Your task to perform on an android device: open app "Microsoft Authenticator" (install if not already installed) and enter user name: "Cornell@yahoo.com" and password: "bothersome" Image 0: 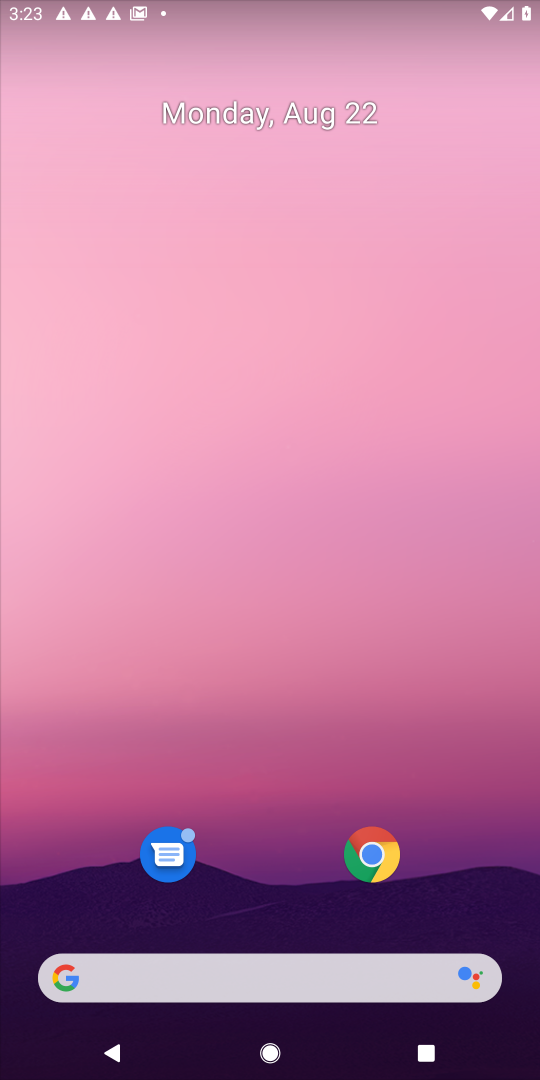
Step 0: drag from (277, 740) to (277, 165)
Your task to perform on an android device: open app "Microsoft Authenticator" (install if not already installed) and enter user name: "Cornell@yahoo.com" and password: "bothersome" Image 1: 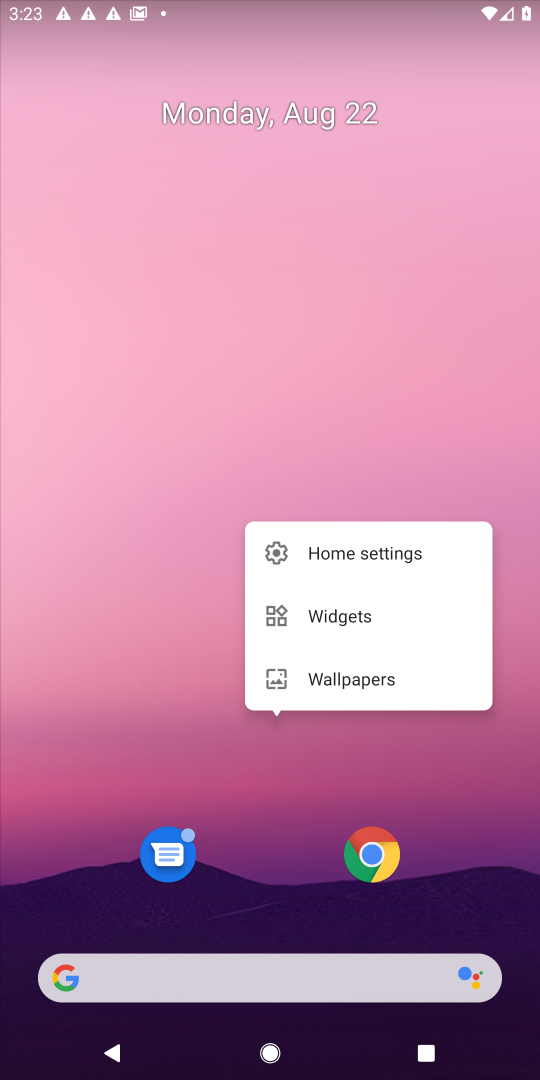
Step 1: click (332, 775)
Your task to perform on an android device: open app "Microsoft Authenticator" (install if not already installed) and enter user name: "Cornell@yahoo.com" and password: "bothersome" Image 2: 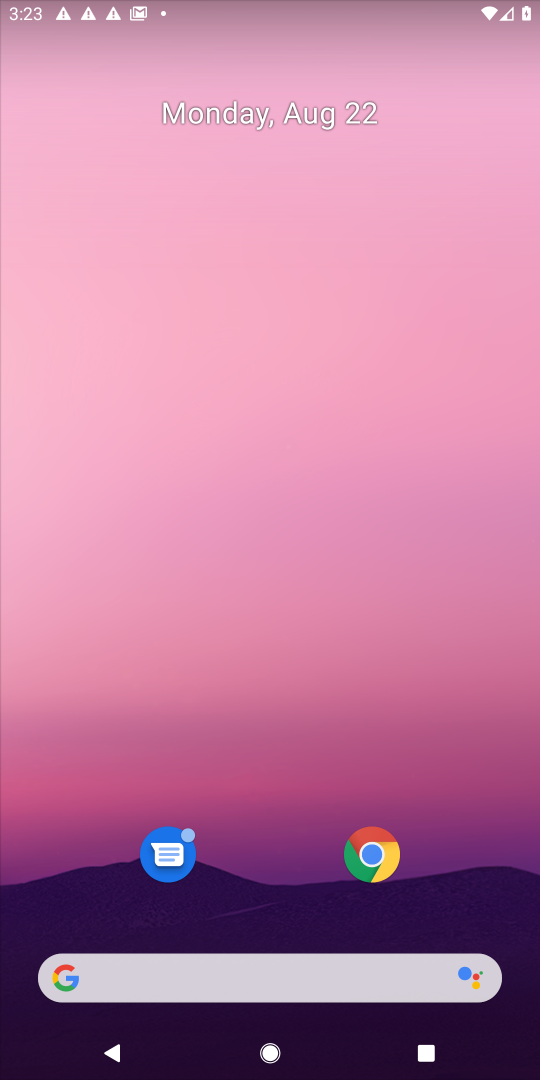
Step 2: drag from (238, 684) to (224, 98)
Your task to perform on an android device: open app "Microsoft Authenticator" (install if not already installed) and enter user name: "Cornell@yahoo.com" and password: "bothersome" Image 3: 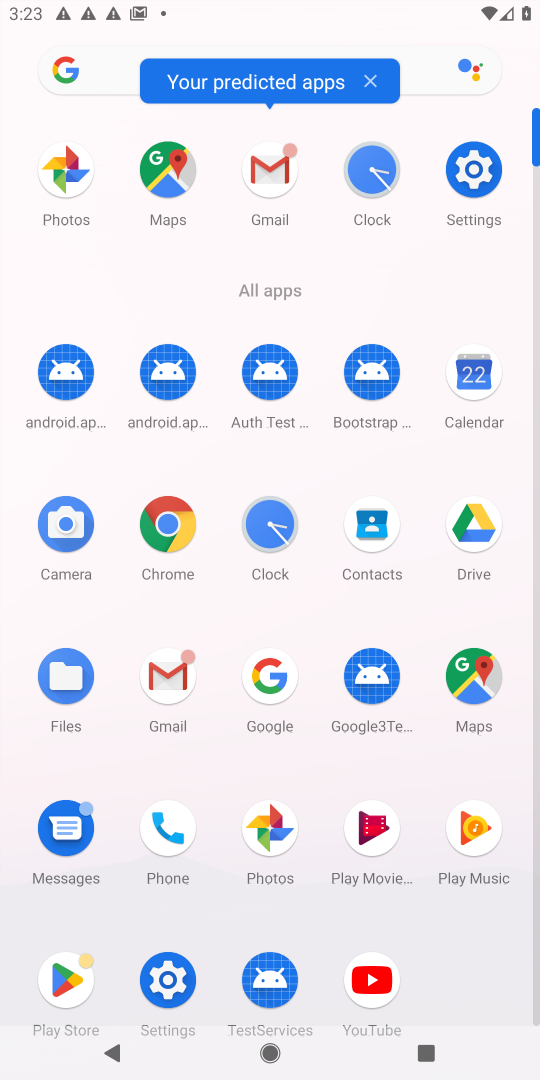
Step 3: click (65, 983)
Your task to perform on an android device: open app "Microsoft Authenticator" (install if not already installed) and enter user name: "Cornell@yahoo.com" and password: "bothersome" Image 4: 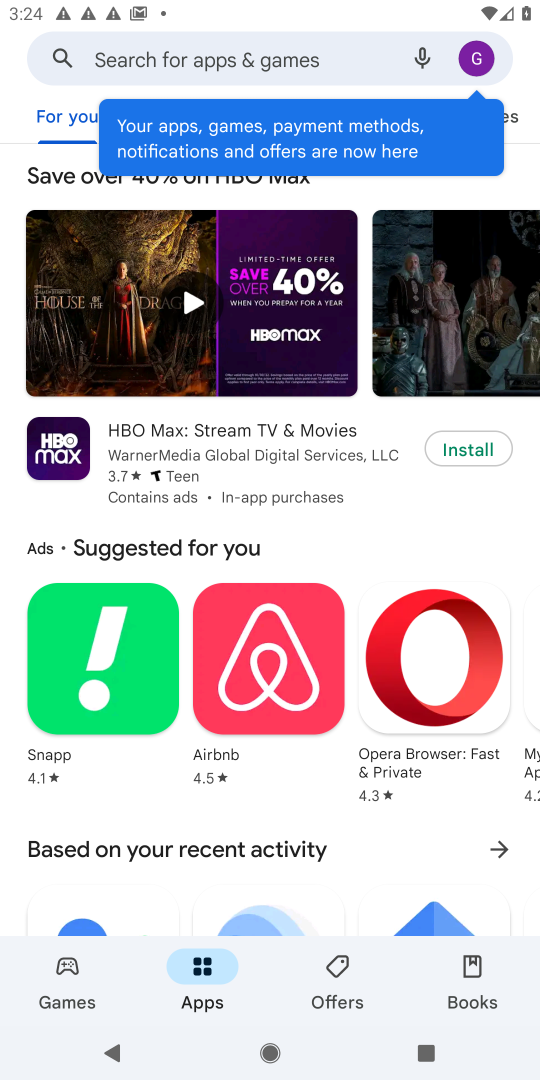
Step 4: click (288, 62)
Your task to perform on an android device: open app "Microsoft Authenticator" (install if not already installed) and enter user name: "Cornell@yahoo.com" and password: "bothersome" Image 5: 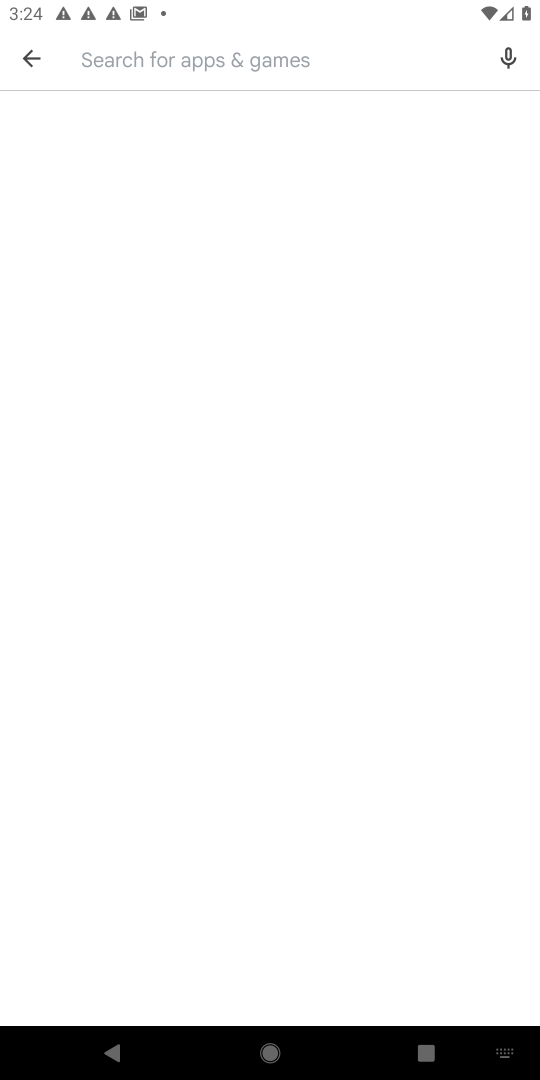
Step 5: type "Microsoft Authenticator"
Your task to perform on an android device: open app "Microsoft Authenticator" (install if not already installed) and enter user name: "Cornell@yahoo.com" and password: "bothersome" Image 6: 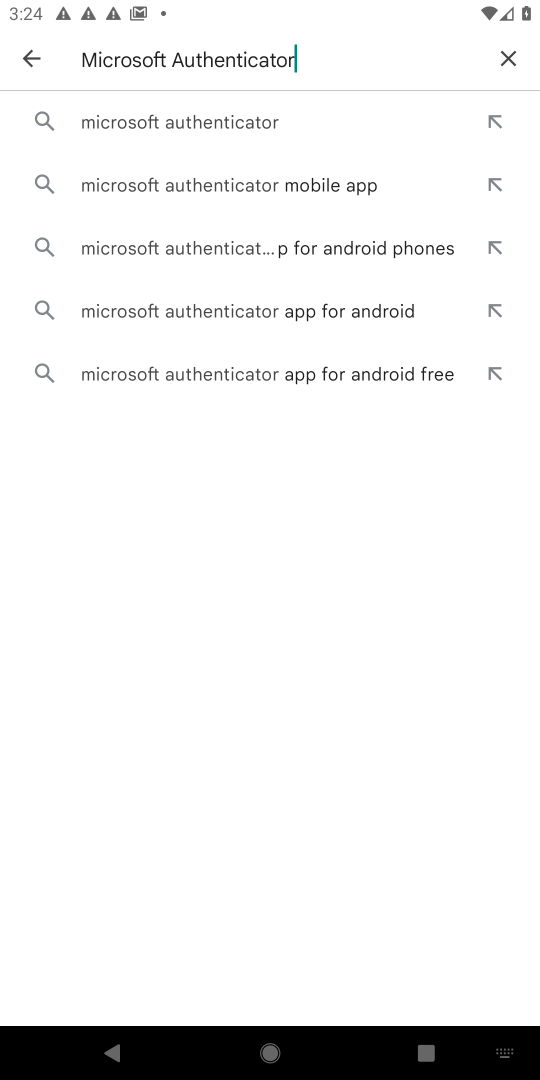
Step 6: click (191, 125)
Your task to perform on an android device: open app "Microsoft Authenticator" (install if not already installed) and enter user name: "Cornell@yahoo.com" and password: "bothersome" Image 7: 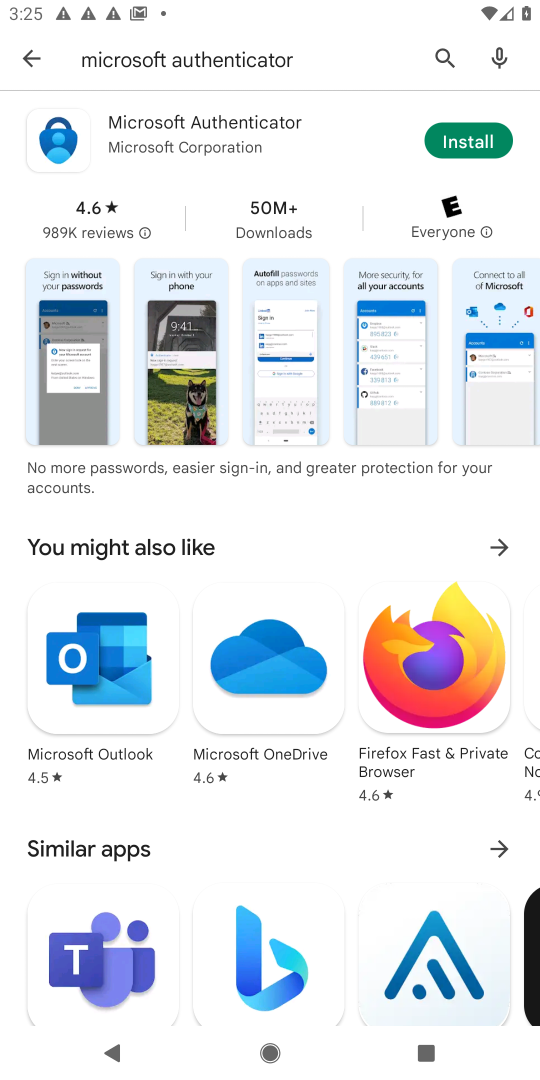
Step 7: click (478, 137)
Your task to perform on an android device: open app "Microsoft Authenticator" (install if not already installed) and enter user name: "Cornell@yahoo.com" and password: "bothersome" Image 8: 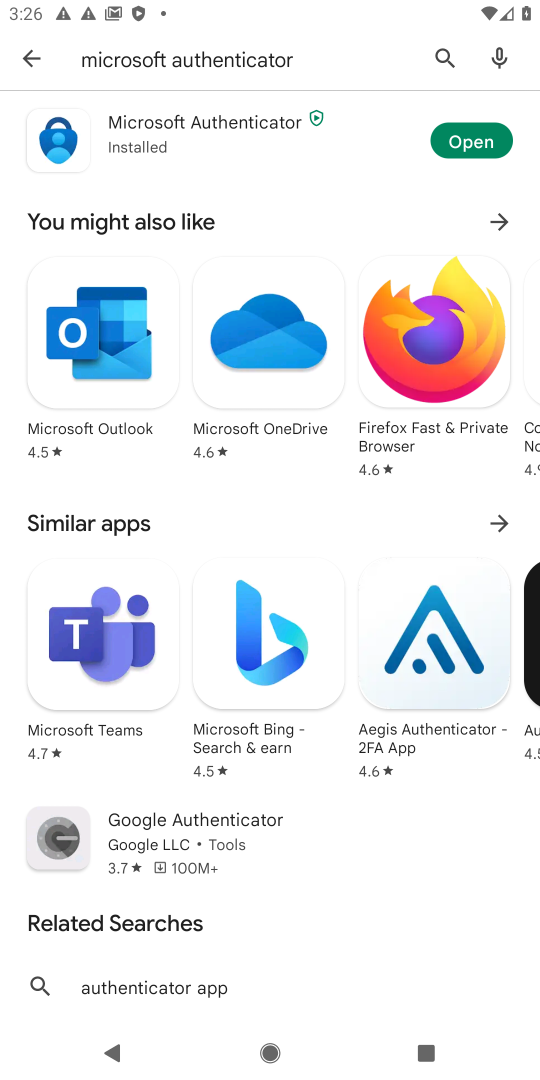
Step 8: click (450, 139)
Your task to perform on an android device: open app "Microsoft Authenticator" (install if not already installed) and enter user name: "Cornell@yahoo.com" and password: "bothersome" Image 9: 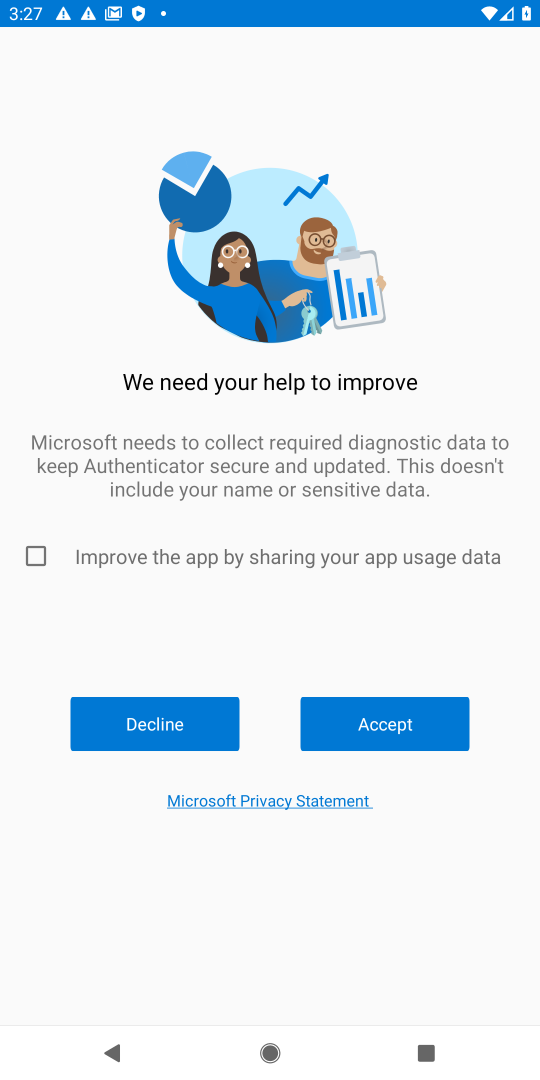
Step 9: click (399, 727)
Your task to perform on an android device: open app "Microsoft Authenticator" (install if not already installed) and enter user name: "Cornell@yahoo.com" and password: "bothersome" Image 10: 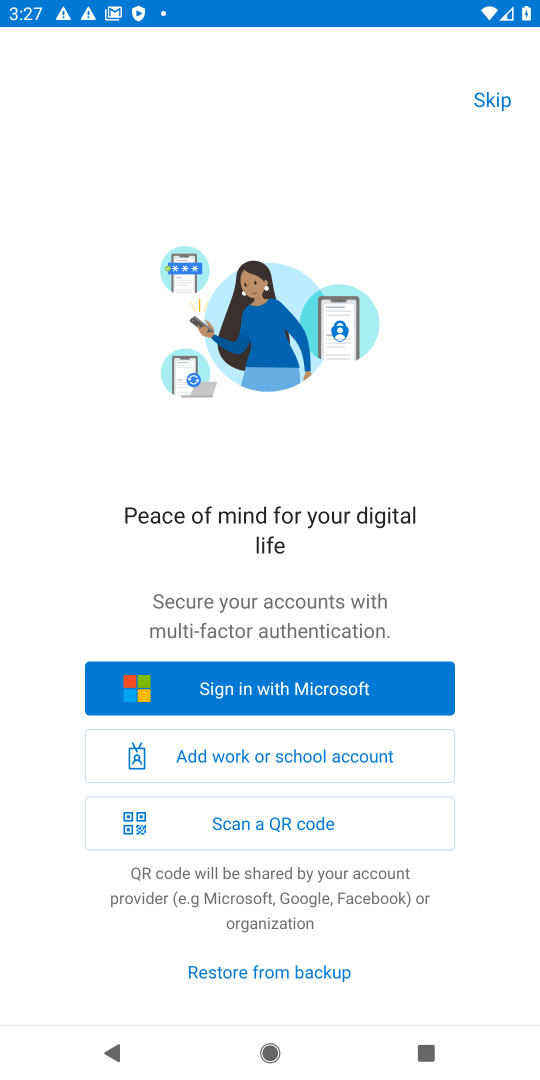
Step 10: click (316, 757)
Your task to perform on an android device: open app "Microsoft Authenticator" (install if not already installed) and enter user name: "Cornell@yahoo.com" and password: "bothersome" Image 11: 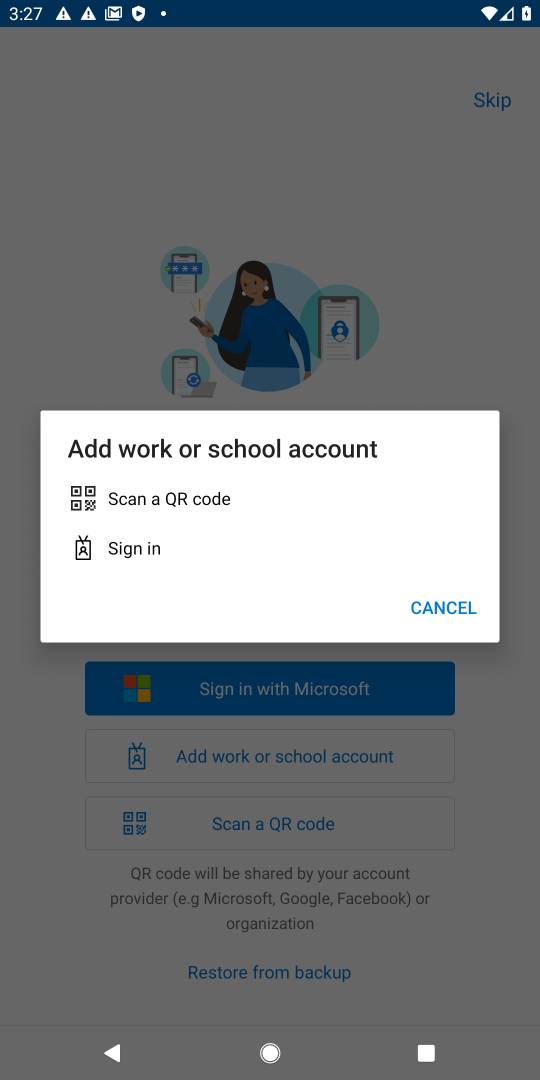
Step 11: click (133, 543)
Your task to perform on an android device: open app "Microsoft Authenticator" (install if not already installed) and enter user name: "Cornell@yahoo.com" and password: "bothersome" Image 12: 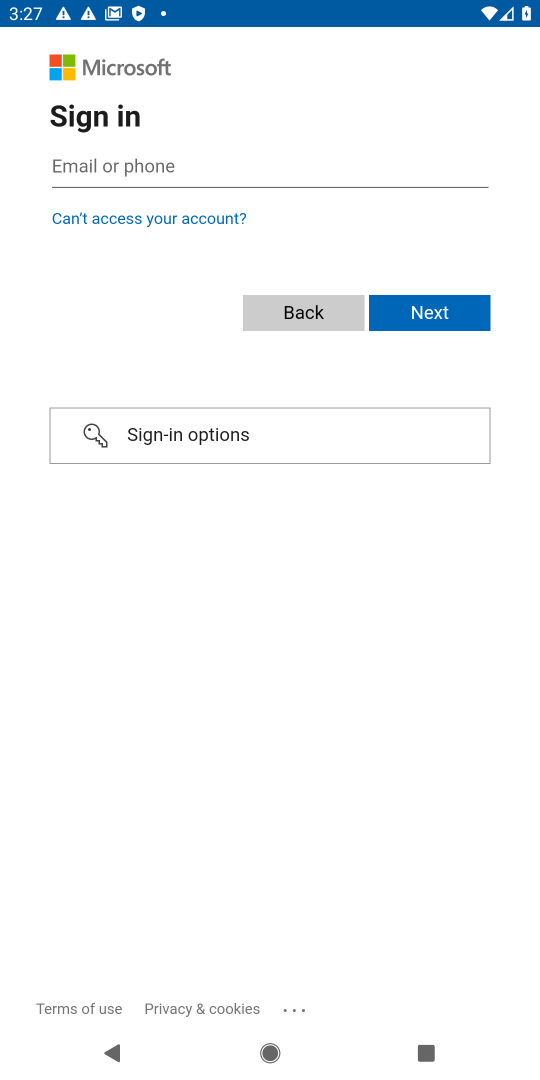
Step 12: click (170, 171)
Your task to perform on an android device: open app "Microsoft Authenticator" (install if not already installed) and enter user name: "Cornell@yahoo.com" and password: "bothersome" Image 13: 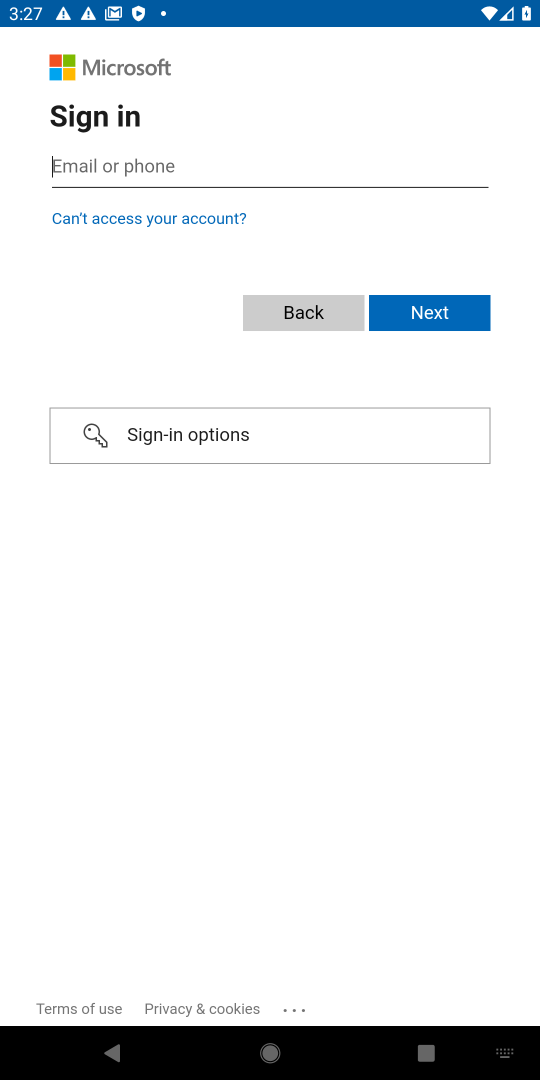
Step 13: type "Cornell@yahoo.com"
Your task to perform on an android device: open app "Microsoft Authenticator" (install if not already installed) and enter user name: "Cornell@yahoo.com" and password: "bothersome" Image 14: 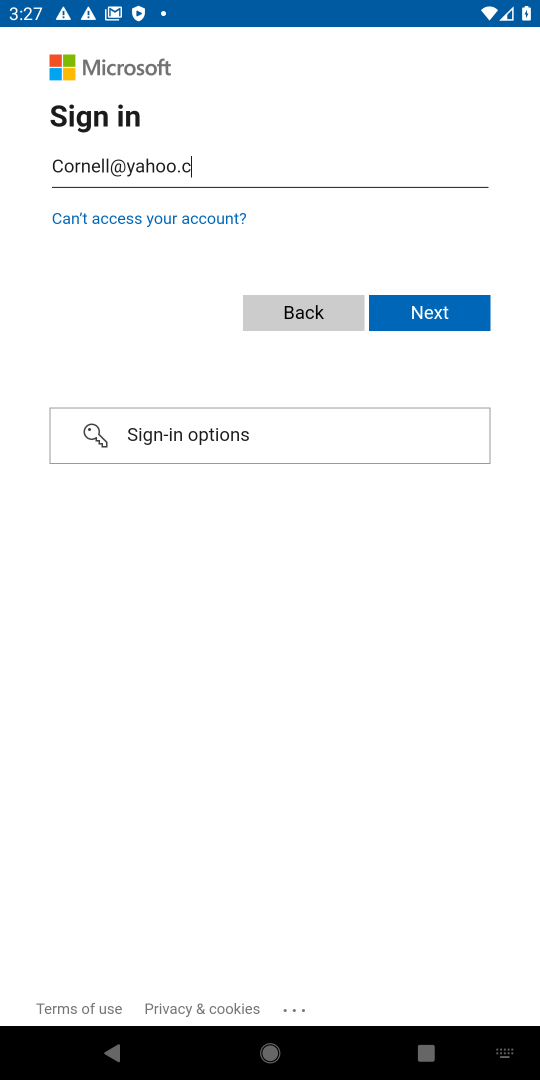
Step 14: type ""
Your task to perform on an android device: open app "Microsoft Authenticator" (install if not already installed) and enter user name: "Cornell@yahoo.com" and password: "bothersome" Image 15: 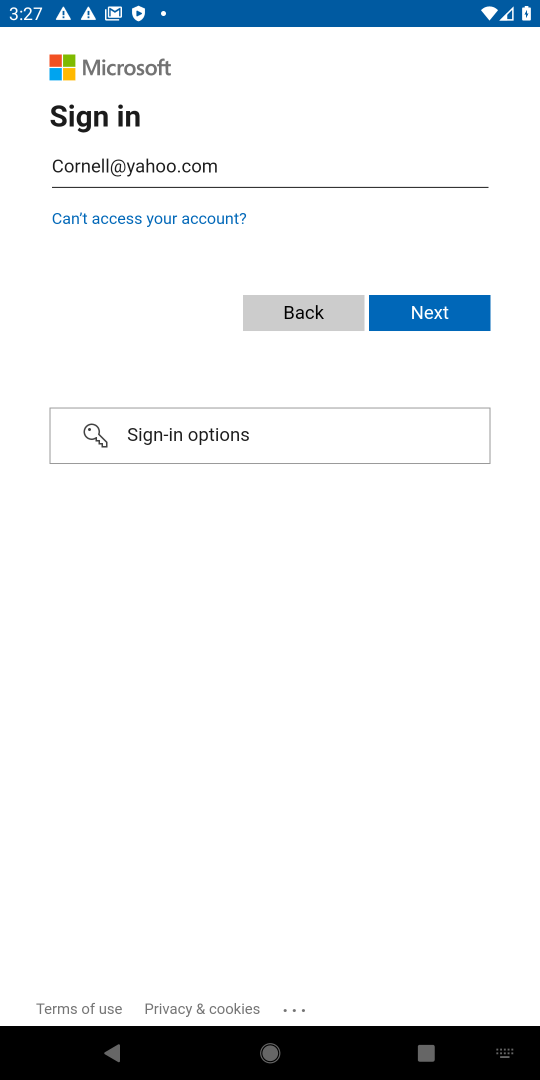
Step 15: click (435, 309)
Your task to perform on an android device: open app "Microsoft Authenticator" (install if not already installed) and enter user name: "Cornell@yahoo.com" and password: "bothersome" Image 16: 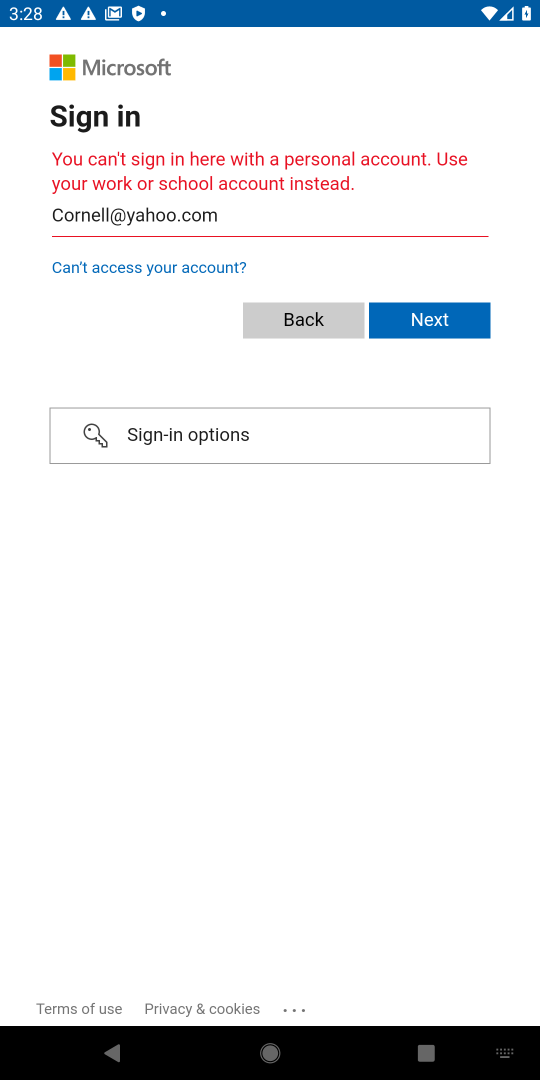
Step 16: task complete